Your task to perform on an android device: Clear the shopping cart on walmart. Add "panasonic triple a" to the cart on walmart, then select checkout. Image 0: 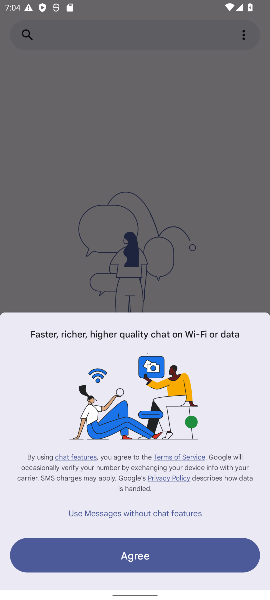
Step 0: press home button
Your task to perform on an android device: Clear the shopping cart on walmart. Add "panasonic triple a" to the cart on walmart, then select checkout. Image 1: 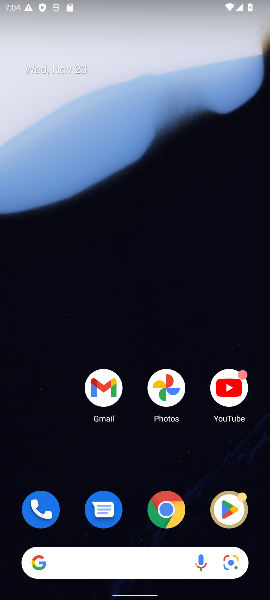
Step 1: click (170, 515)
Your task to perform on an android device: Clear the shopping cart on walmart. Add "panasonic triple a" to the cart on walmart, then select checkout. Image 2: 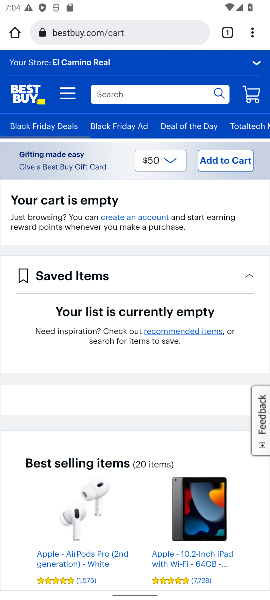
Step 2: click (117, 35)
Your task to perform on an android device: Clear the shopping cart on walmart. Add "panasonic triple a" to the cart on walmart, then select checkout. Image 3: 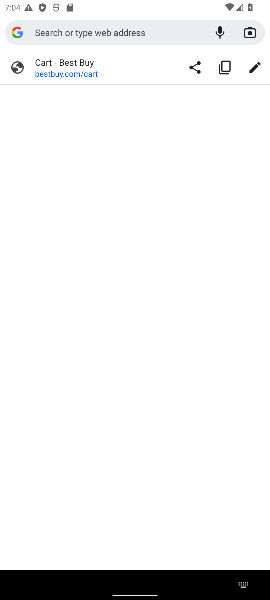
Step 3: type "walmart"
Your task to perform on an android device: Clear the shopping cart on walmart. Add "panasonic triple a" to the cart on walmart, then select checkout. Image 4: 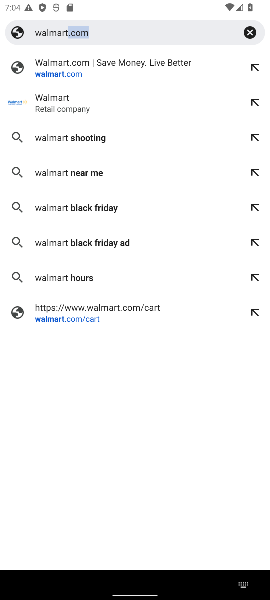
Step 4: click (89, 64)
Your task to perform on an android device: Clear the shopping cart on walmart. Add "panasonic triple a" to the cart on walmart, then select checkout. Image 5: 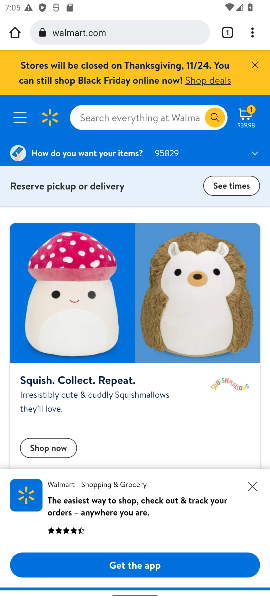
Step 5: click (253, 120)
Your task to perform on an android device: Clear the shopping cart on walmart. Add "panasonic triple a" to the cart on walmart, then select checkout. Image 6: 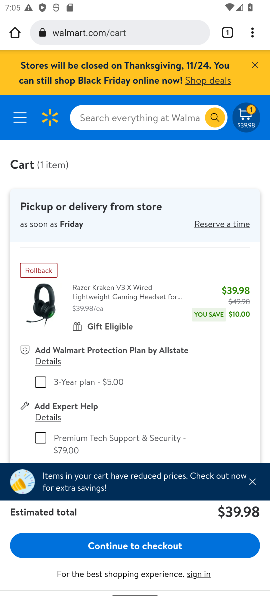
Step 6: drag from (189, 401) to (150, 189)
Your task to perform on an android device: Clear the shopping cart on walmart. Add "panasonic triple a" to the cart on walmart, then select checkout. Image 7: 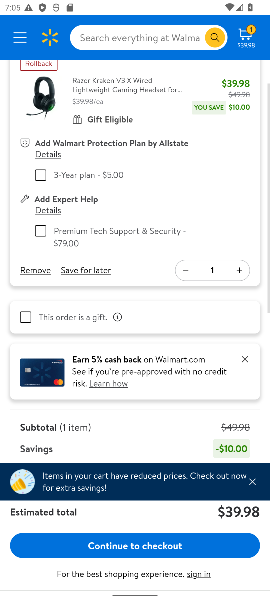
Step 7: click (182, 274)
Your task to perform on an android device: Clear the shopping cart on walmart. Add "panasonic triple a" to the cart on walmart, then select checkout. Image 8: 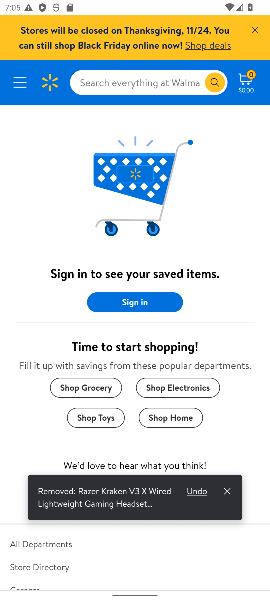
Step 8: click (121, 85)
Your task to perform on an android device: Clear the shopping cart on walmart. Add "panasonic triple a" to the cart on walmart, then select checkout. Image 9: 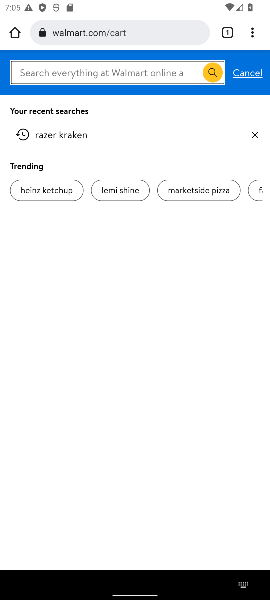
Step 9: type "panasonic aaa"
Your task to perform on an android device: Clear the shopping cart on walmart. Add "panasonic triple a" to the cart on walmart, then select checkout. Image 10: 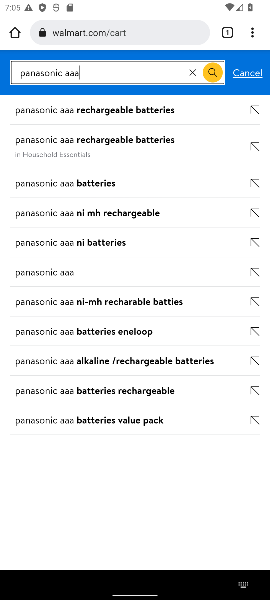
Step 10: press enter
Your task to perform on an android device: Clear the shopping cart on walmart. Add "panasonic triple a" to the cart on walmart, then select checkout. Image 11: 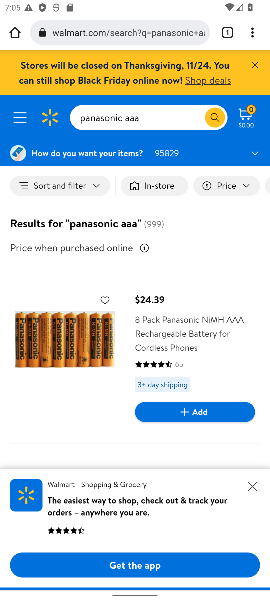
Step 11: click (192, 414)
Your task to perform on an android device: Clear the shopping cart on walmart. Add "panasonic triple a" to the cart on walmart, then select checkout. Image 12: 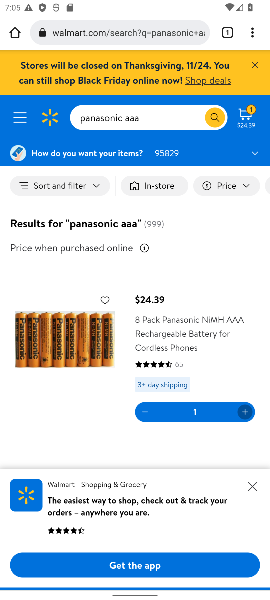
Step 12: click (252, 111)
Your task to perform on an android device: Clear the shopping cart on walmart. Add "panasonic triple a" to the cart on walmart, then select checkout. Image 13: 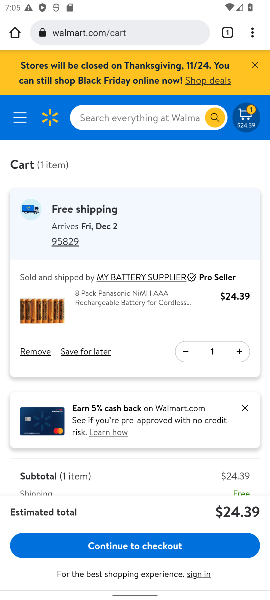
Step 13: click (162, 542)
Your task to perform on an android device: Clear the shopping cart on walmart. Add "panasonic triple a" to the cart on walmart, then select checkout. Image 14: 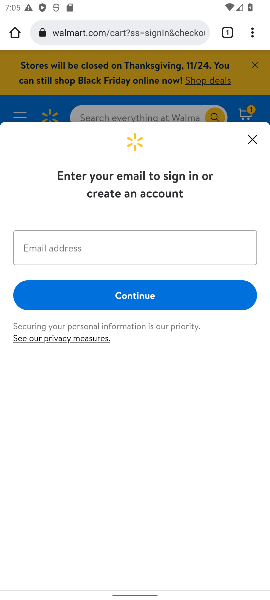
Step 14: task complete